Your task to perform on an android device: Open Yahoo.com Image 0: 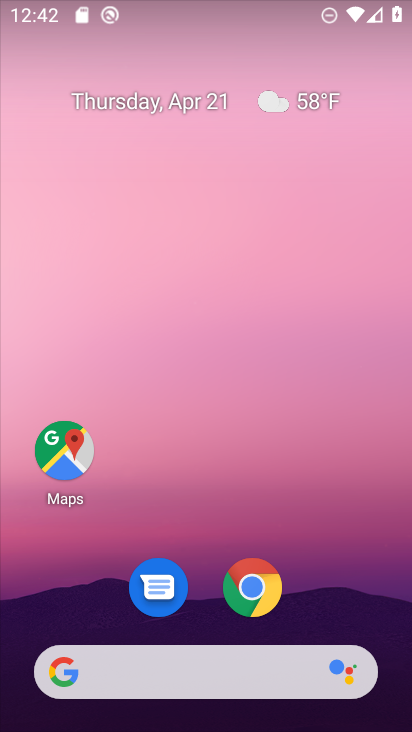
Step 0: click (299, 322)
Your task to perform on an android device: Open Yahoo.com Image 1: 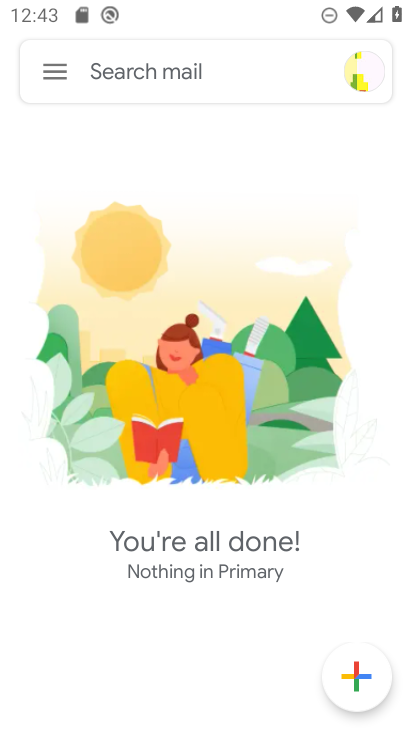
Step 1: press home button
Your task to perform on an android device: Open Yahoo.com Image 2: 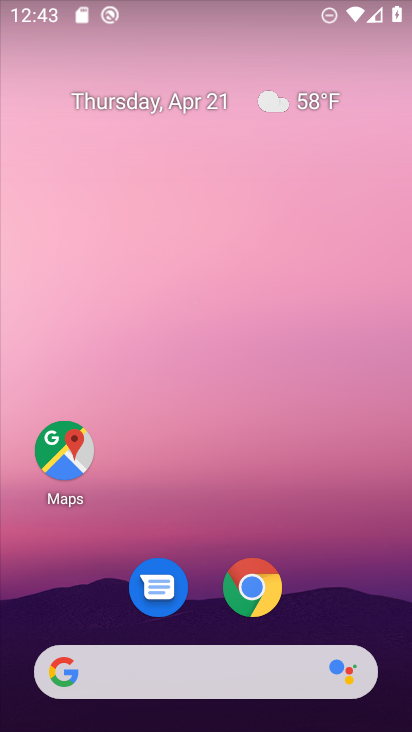
Step 2: click (243, 577)
Your task to perform on an android device: Open Yahoo.com Image 3: 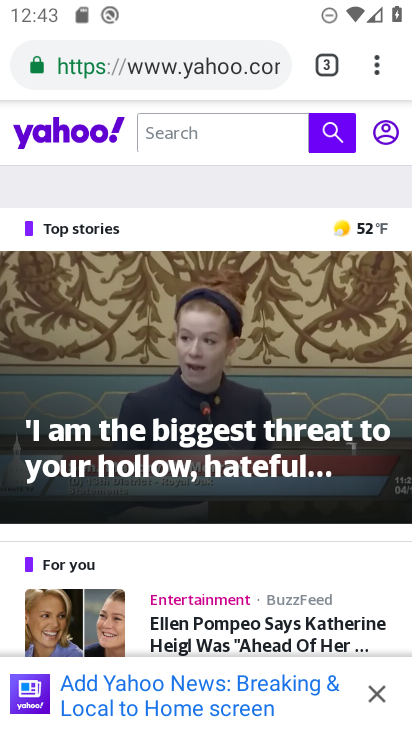
Step 3: task complete